Your task to perform on an android device: Open Wikipedia Image 0: 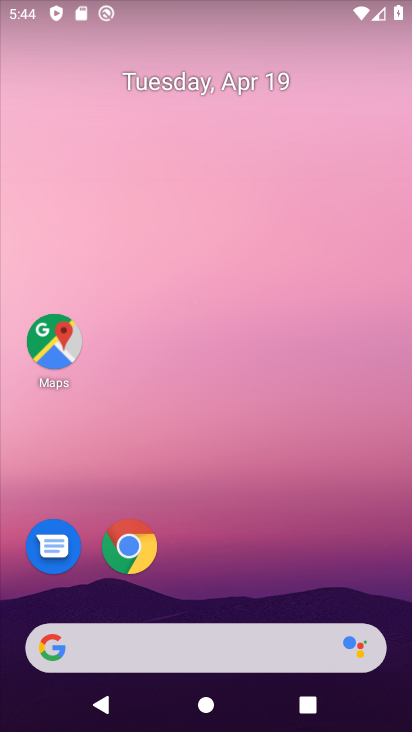
Step 0: drag from (301, 548) to (295, 60)
Your task to perform on an android device: Open Wikipedia Image 1: 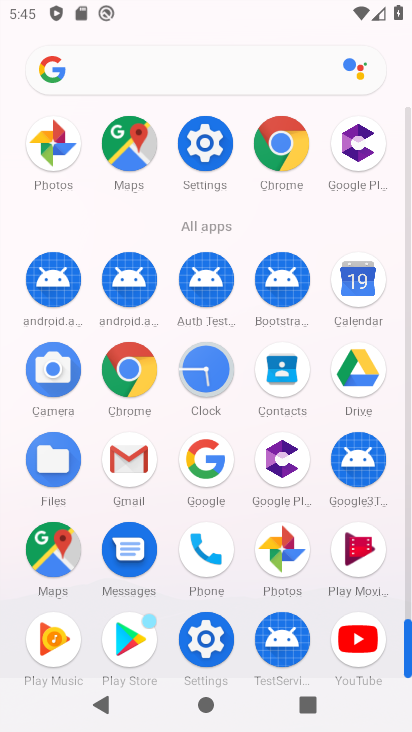
Step 1: click (132, 373)
Your task to perform on an android device: Open Wikipedia Image 2: 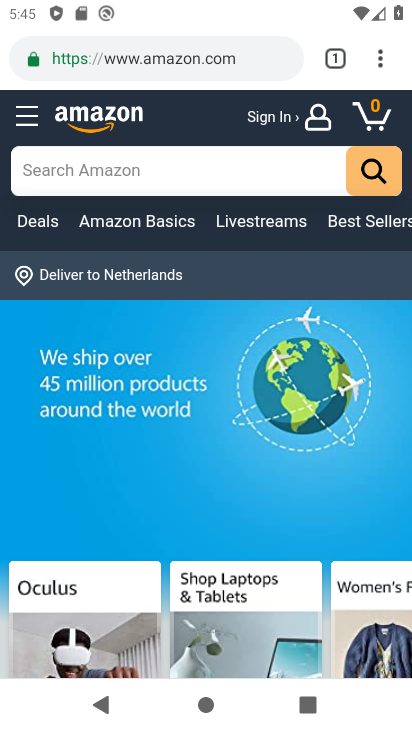
Step 2: click (249, 65)
Your task to perform on an android device: Open Wikipedia Image 3: 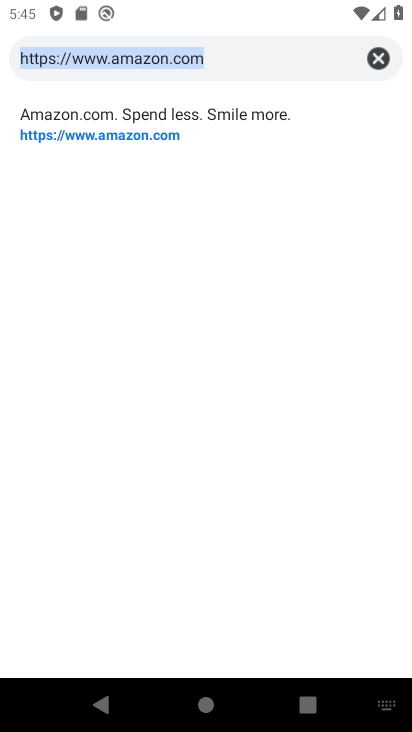
Step 3: type "wikipedia"
Your task to perform on an android device: Open Wikipedia Image 4: 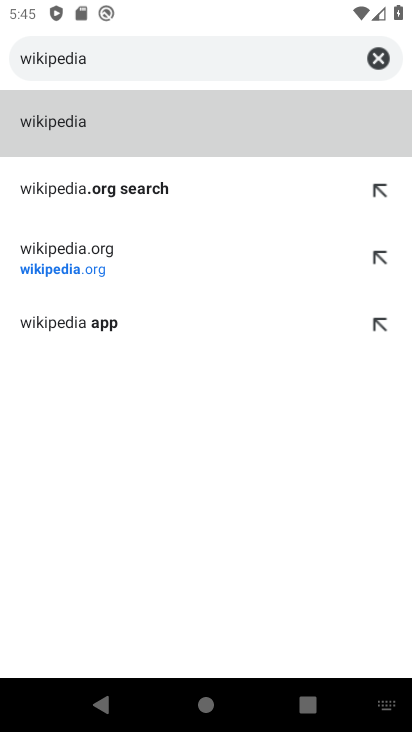
Step 4: click (149, 139)
Your task to perform on an android device: Open Wikipedia Image 5: 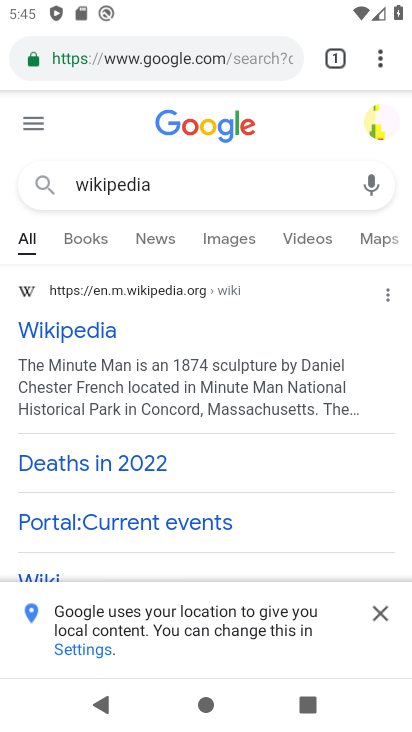
Step 5: click (57, 324)
Your task to perform on an android device: Open Wikipedia Image 6: 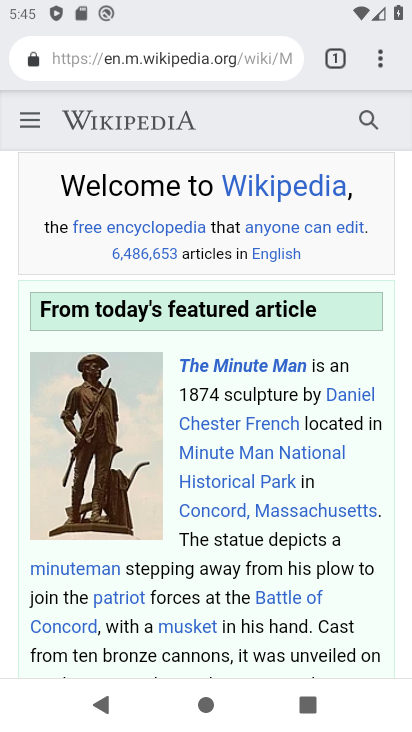
Step 6: task complete